Your task to perform on an android device: delete the emails in spam in the gmail app Image 0: 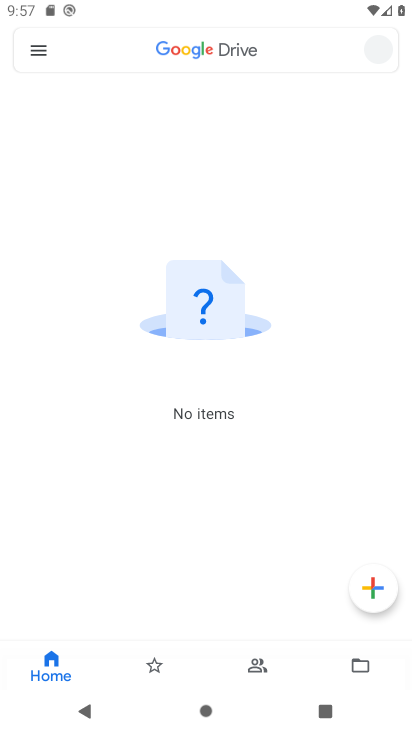
Step 0: click (223, 570)
Your task to perform on an android device: delete the emails in spam in the gmail app Image 1: 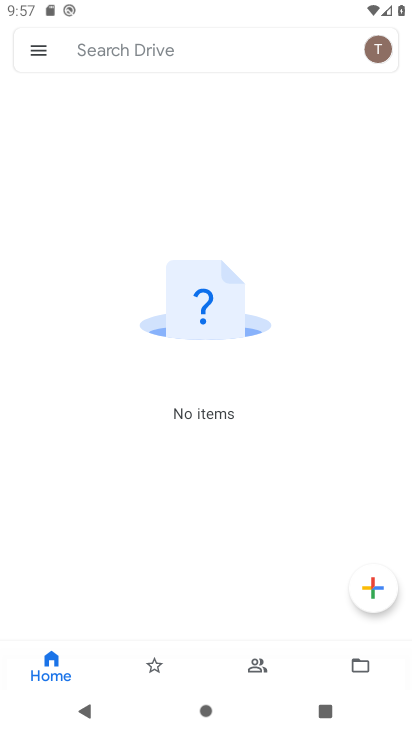
Step 1: press home button
Your task to perform on an android device: delete the emails in spam in the gmail app Image 2: 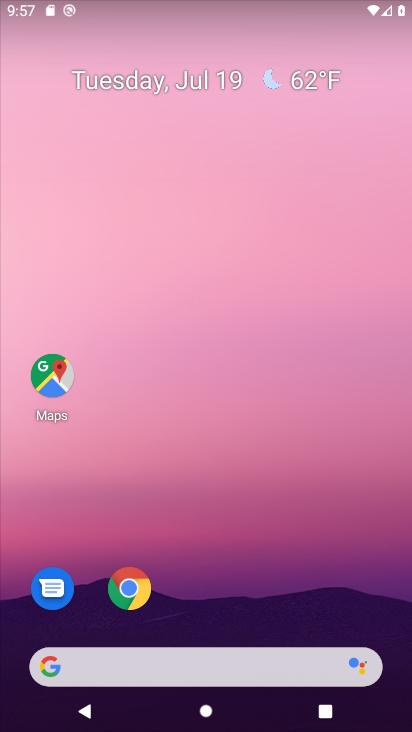
Step 2: click (168, 67)
Your task to perform on an android device: delete the emails in spam in the gmail app Image 3: 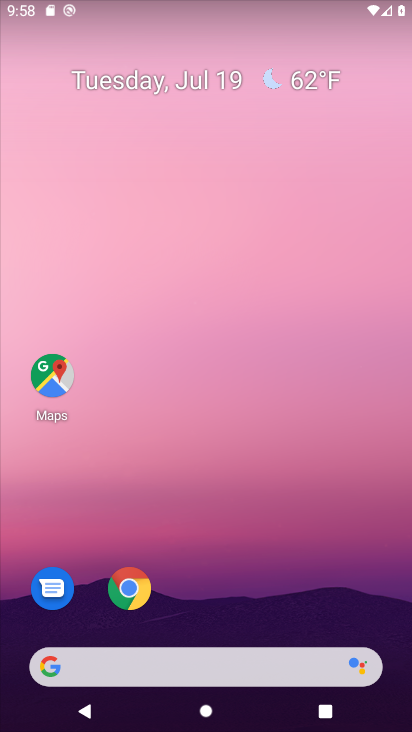
Step 3: drag from (184, 617) to (199, 49)
Your task to perform on an android device: delete the emails in spam in the gmail app Image 4: 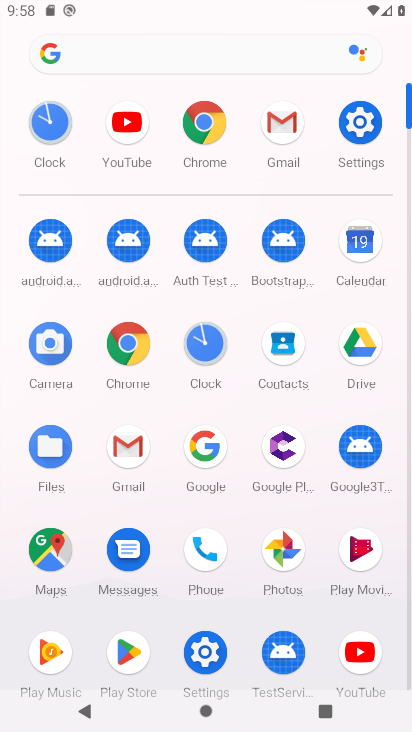
Step 4: click (279, 142)
Your task to perform on an android device: delete the emails in spam in the gmail app Image 5: 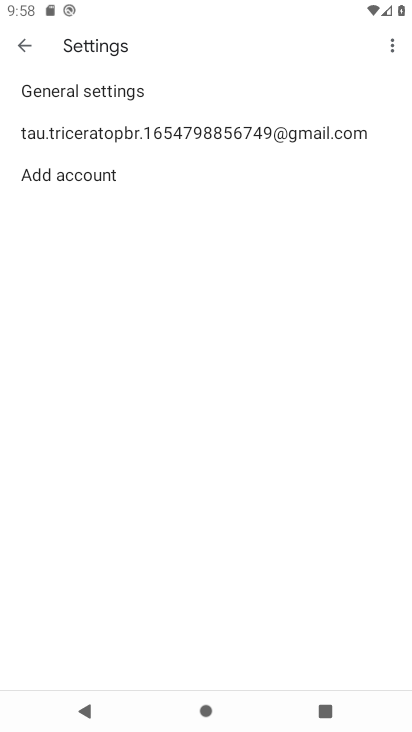
Step 5: click (31, 50)
Your task to perform on an android device: delete the emails in spam in the gmail app Image 6: 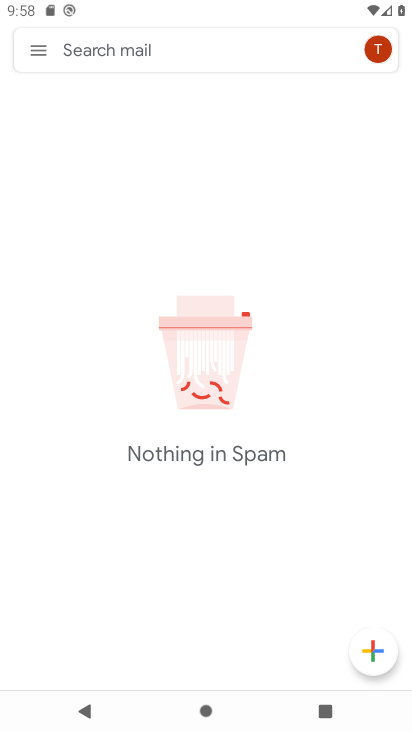
Step 6: task complete